Your task to perform on an android device: Go to location settings Image 0: 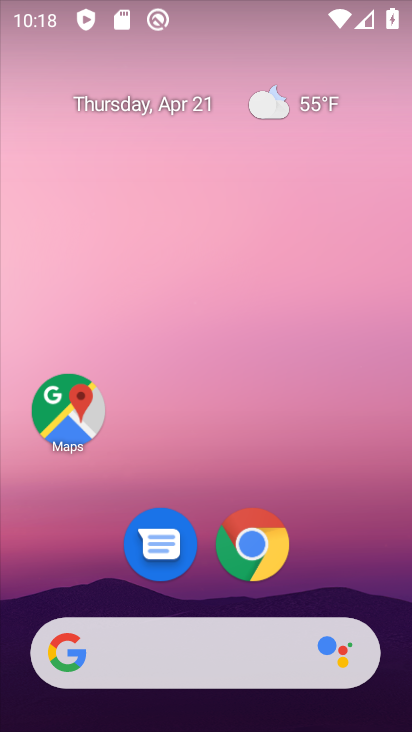
Step 0: drag from (362, 539) to (169, 56)
Your task to perform on an android device: Go to location settings Image 1: 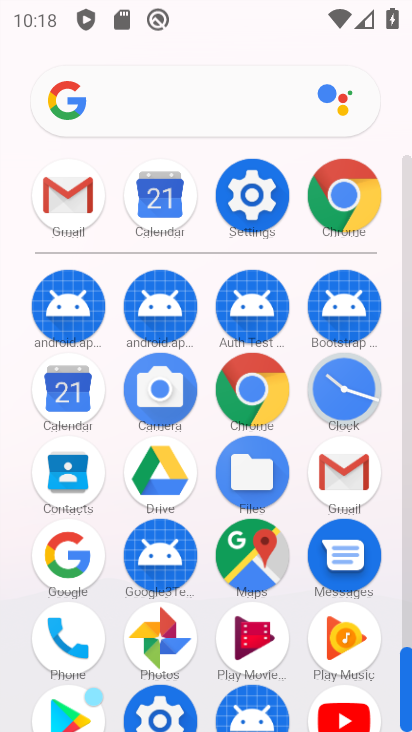
Step 1: drag from (8, 531) to (5, 270)
Your task to perform on an android device: Go to location settings Image 2: 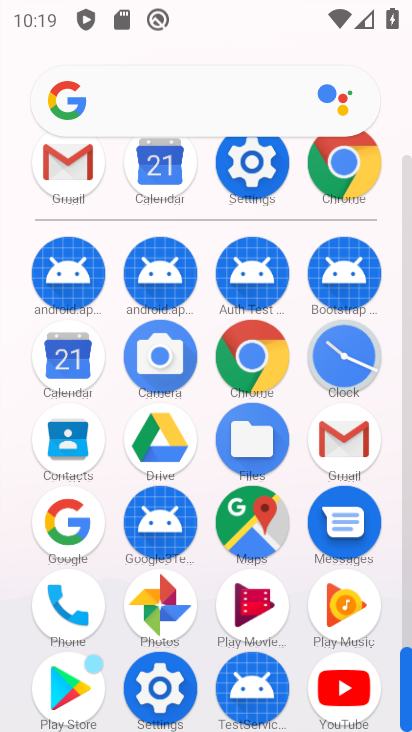
Step 2: click (160, 681)
Your task to perform on an android device: Go to location settings Image 3: 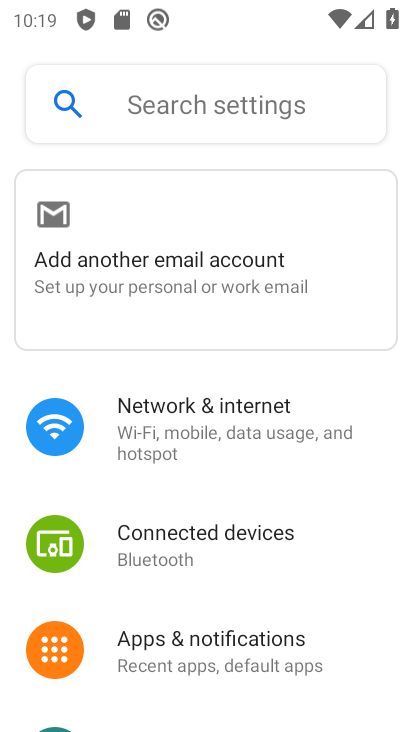
Step 3: drag from (277, 596) to (293, 103)
Your task to perform on an android device: Go to location settings Image 4: 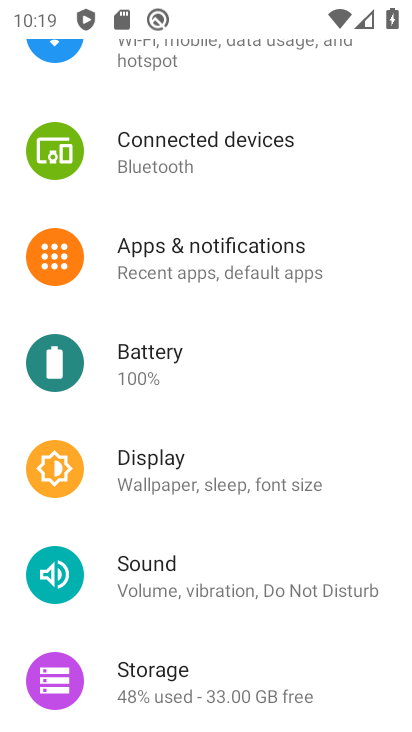
Step 4: drag from (248, 552) to (278, 182)
Your task to perform on an android device: Go to location settings Image 5: 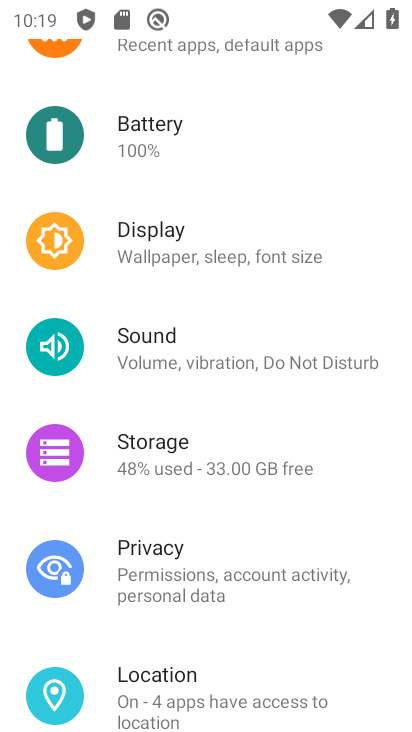
Step 5: click (199, 679)
Your task to perform on an android device: Go to location settings Image 6: 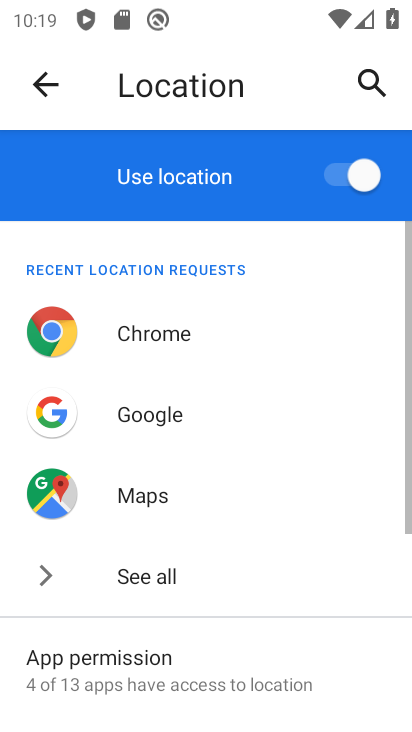
Step 6: drag from (281, 576) to (262, 156)
Your task to perform on an android device: Go to location settings Image 7: 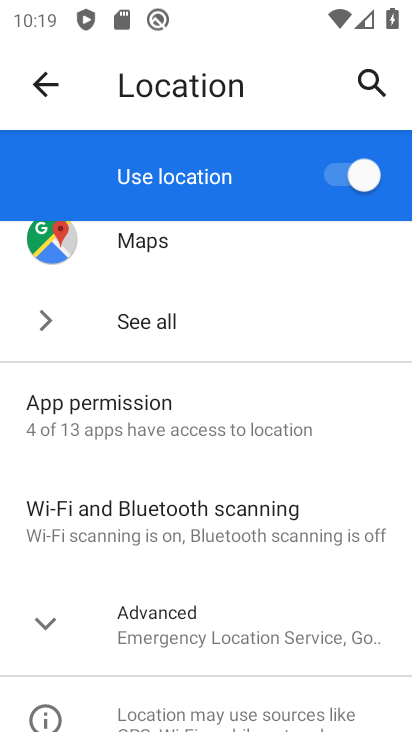
Step 7: click (43, 618)
Your task to perform on an android device: Go to location settings Image 8: 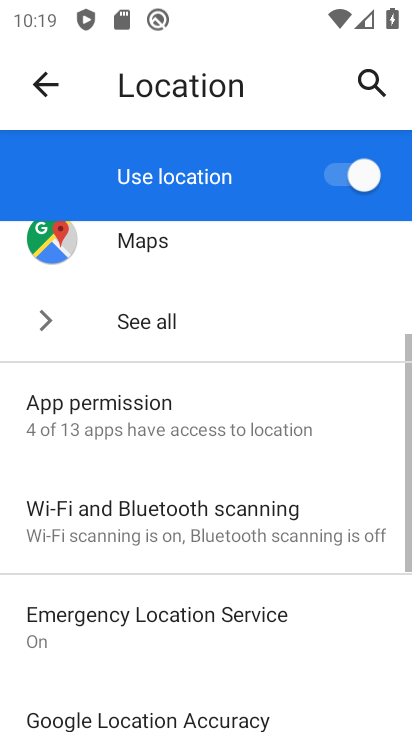
Step 8: task complete